Your task to perform on an android device: Open Google Maps Image 0: 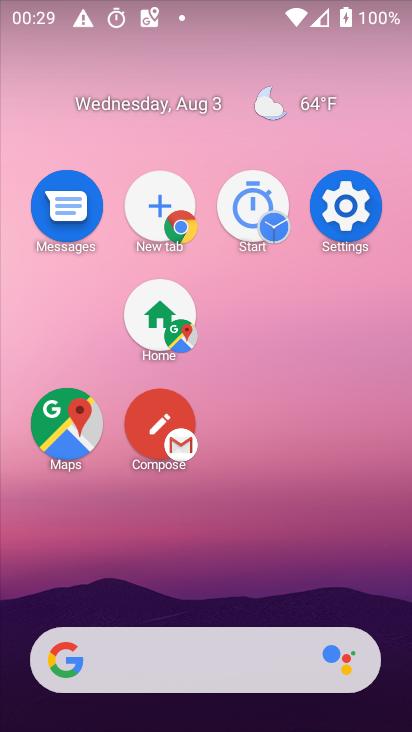
Step 0: drag from (259, 659) to (170, 165)
Your task to perform on an android device: Open Google Maps Image 1: 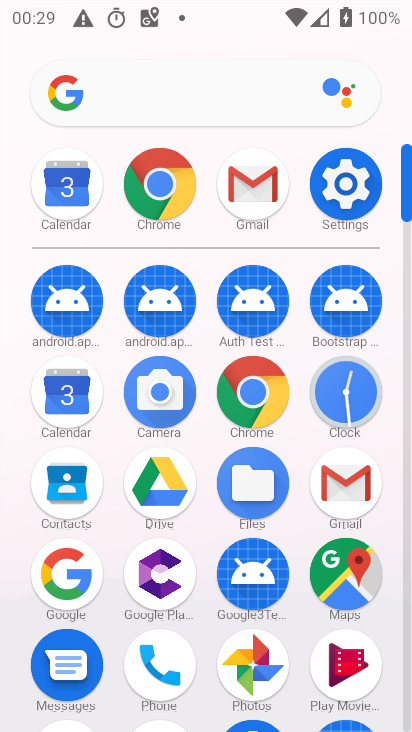
Step 1: click (339, 562)
Your task to perform on an android device: Open Google Maps Image 2: 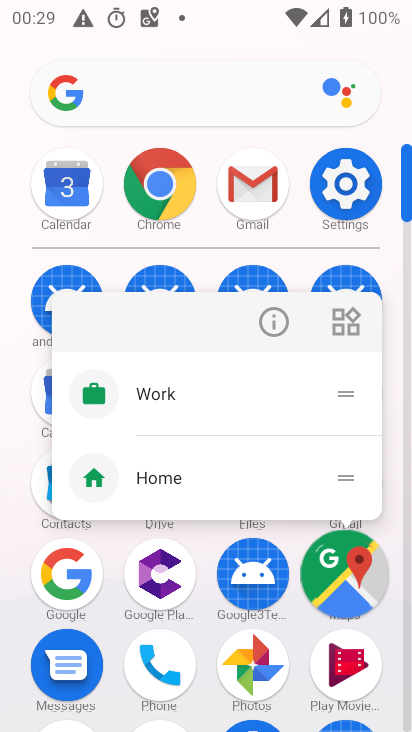
Step 2: click (335, 569)
Your task to perform on an android device: Open Google Maps Image 3: 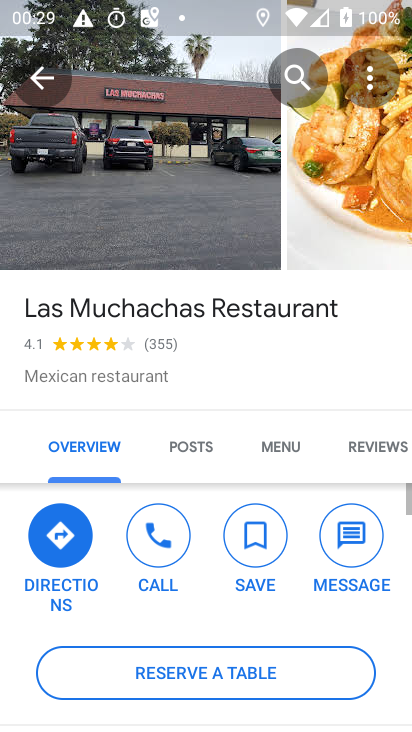
Step 3: click (35, 76)
Your task to perform on an android device: Open Google Maps Image 4: 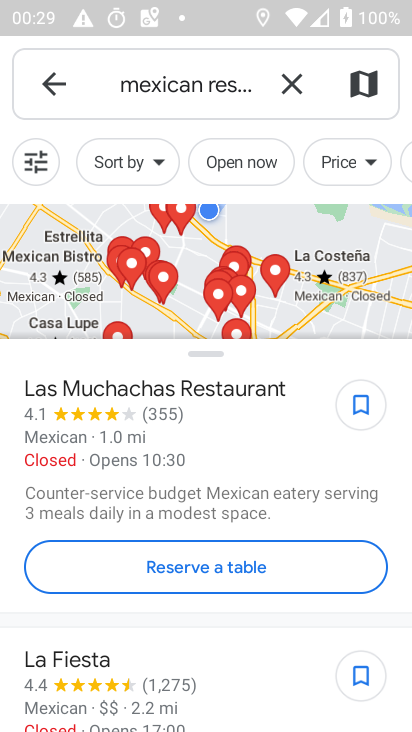
Step 4: task complete